Your task to perform on an android device: Open Chrome and go to the settings page Image 0: 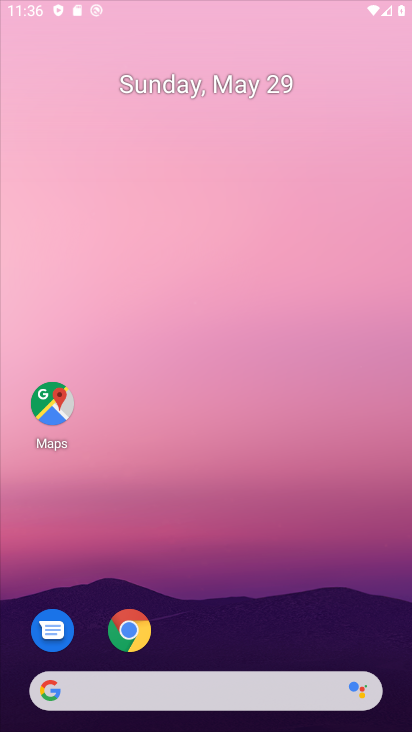
Step 0: press home button
Your task to perform on an android device: Open Chrome and go to the settings page Image 1: 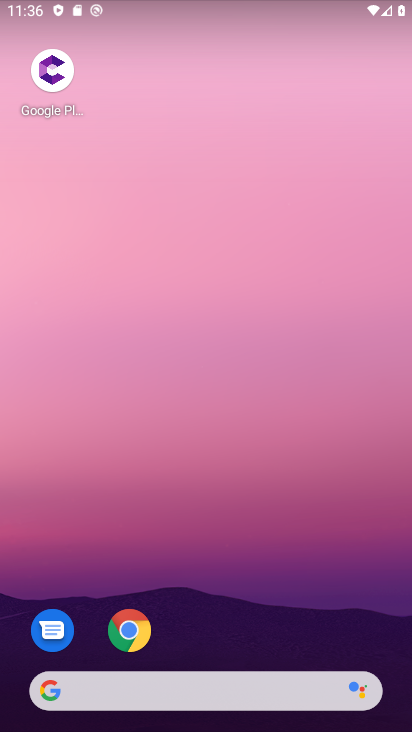
Step 1: click (134, 634)
Your task to perform on an android device: Open Chrome and go to the settings page Image 2: 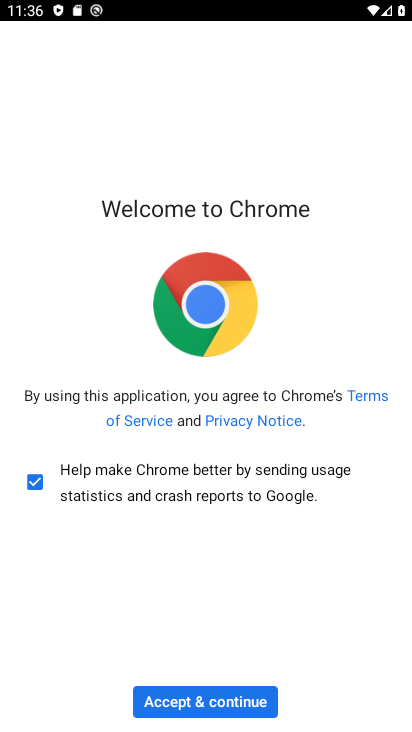
Step 2: click (208, 706)
Your task to perform on an android device: Open Chrome and go to the settings page Image 3: 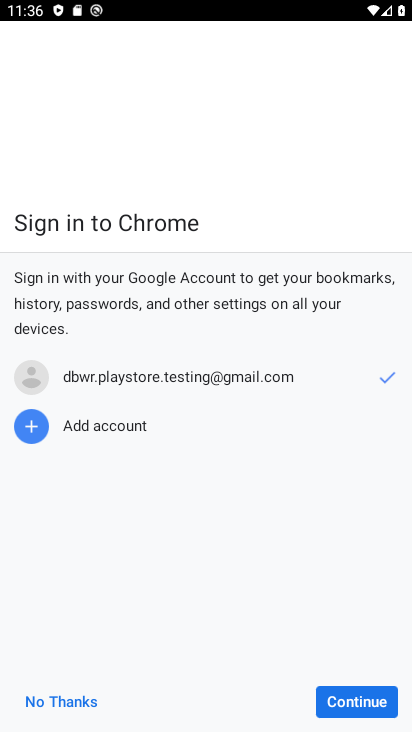
Step 3: click (341, 701)
Your task to perform on an android device: Open Chrome and go to the settings page Image 4: 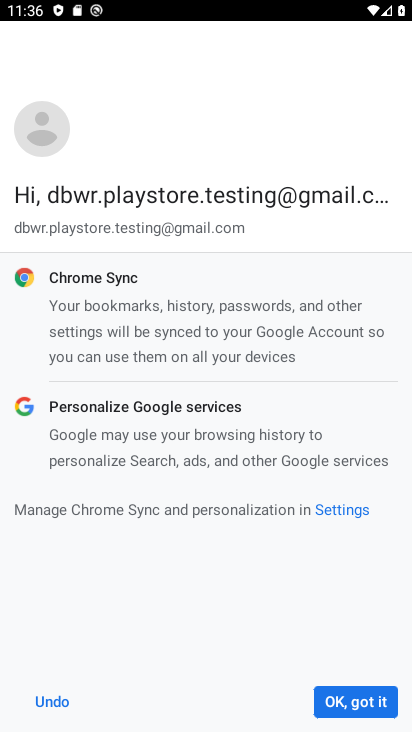
Step 4: click (357, 701)
Your task to perform on an android device: Open Chrome and go to the settings page Image 5: 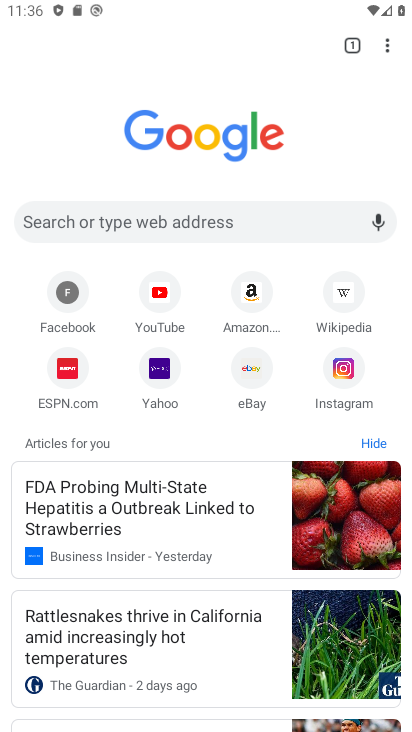
Step 5: click (388, 46)
Your task to perform on an android device: Open Chrome and go to the settings page Image 6: 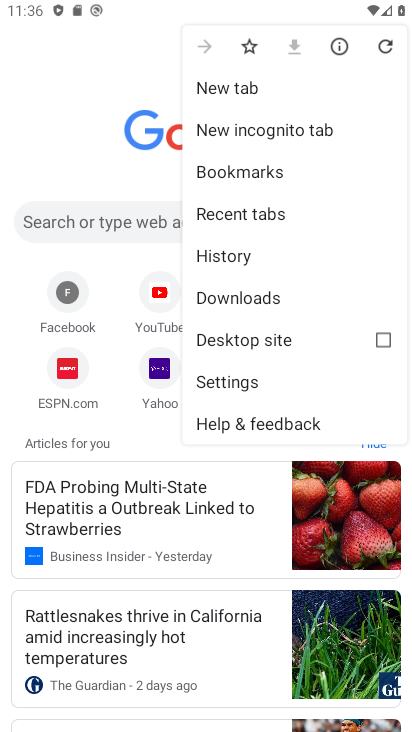
Step 6: click (221, 385)
Your task to perform on an android device: Open Chrome and go to the settings page Image 7: 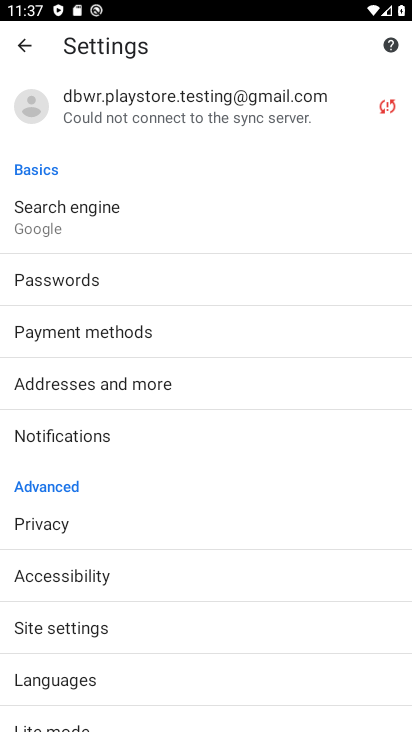
Step 7: click (49, 632)
Your task to perform on an android device: Open Chrome and go to the settings page Image 8: 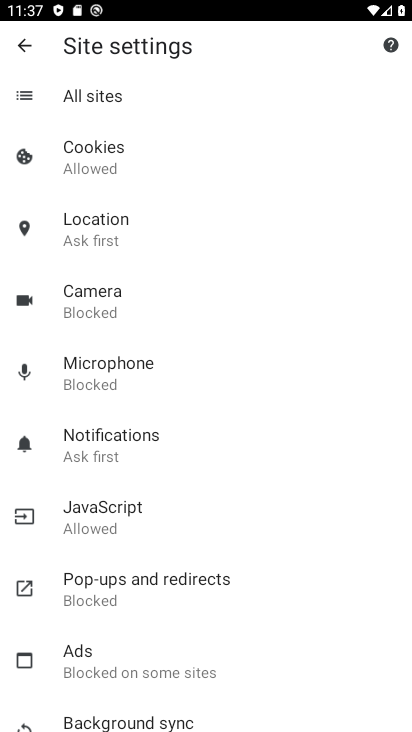
Step 8: task complete